Your task to perform on an android device: turn on notifications settings in the gmail app Image 0: 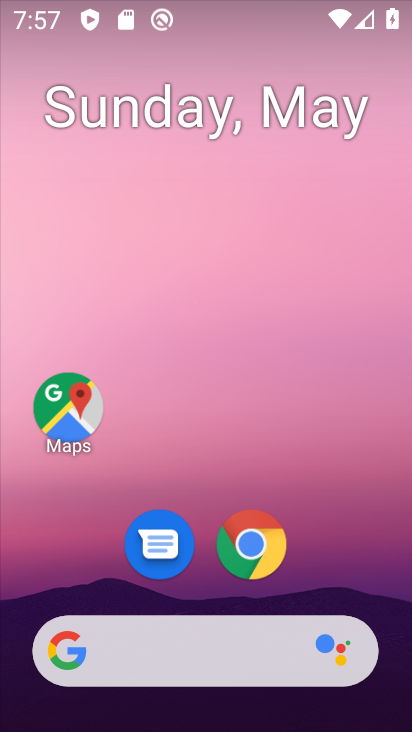
Step 0: drag from (352, 535) to (281, 4)
Your task to perform on an android device: turn on notifications settings in the gmail app Image 1: 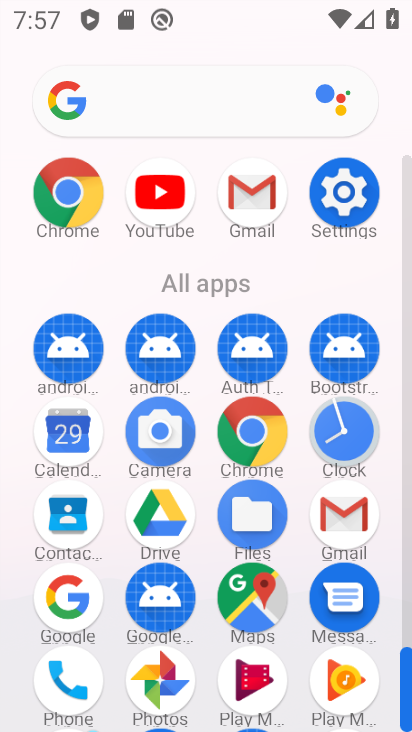
Step 1: drag from (3, 379) to (3, 139)
Your task to perform on an android device: turn on notifications settings in the gmail app Image 2: 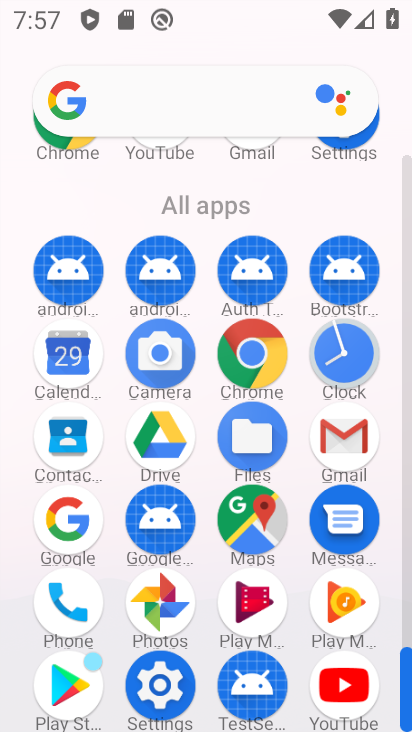
Step 2: click (343, 436)
Your task to perform on an android device: turn on notifications settings in the gmail app Image 3: 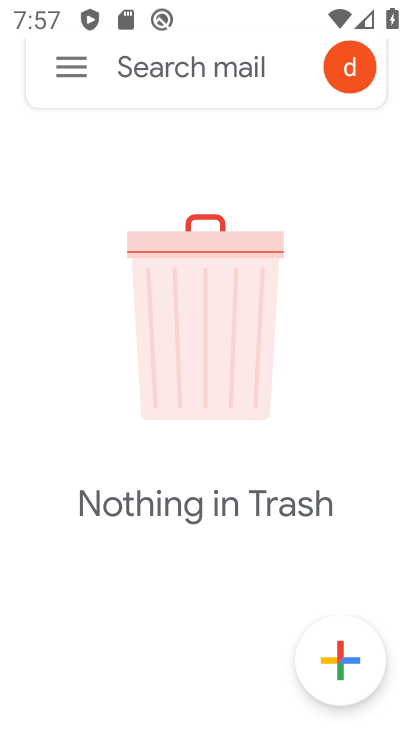
Step 3: click (73, 61)
Your task to perform on an android device: turn on notifications settings in the gmail app Image 4: 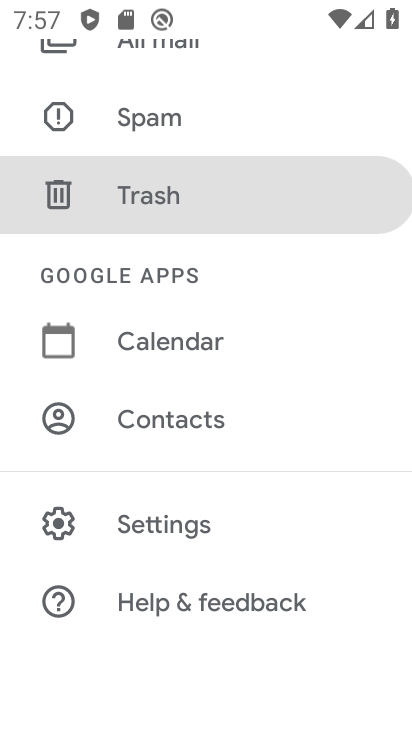
Step 4: click (156, 509)
Your task to perform on an android device: turn on notifications settings in the gmail app Image 5: 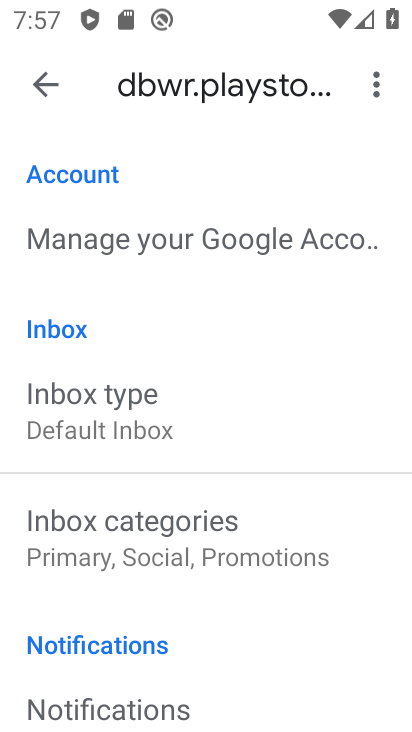
Step 5: drag from (287, 587) to (308, 172)
Your task to perform on an android device: turn on notifications settings in the gmail app Image 6: 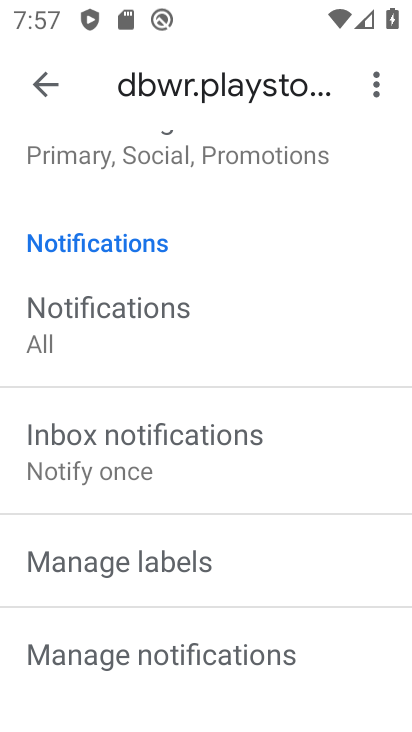
Step 6: click (210, 644)
Your task to perform on an android device: turn on notifications settings in the gmail app Image 7: 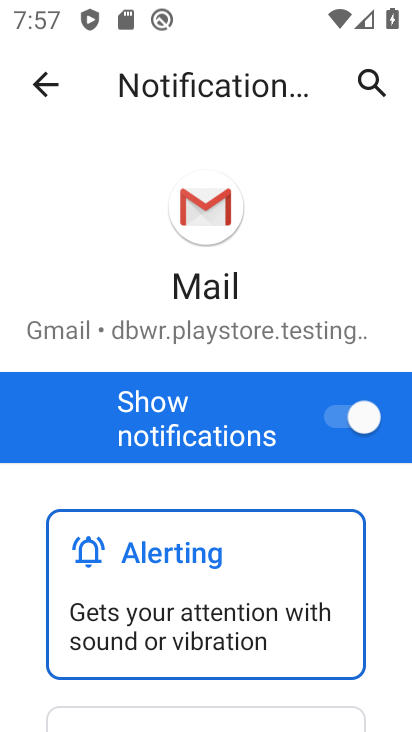
Step 7: task complete